Your task to perform on an android device: Search for "alienware area 51" on newegg, select the first entry, add it to the cart, then select checkout. Image 0: 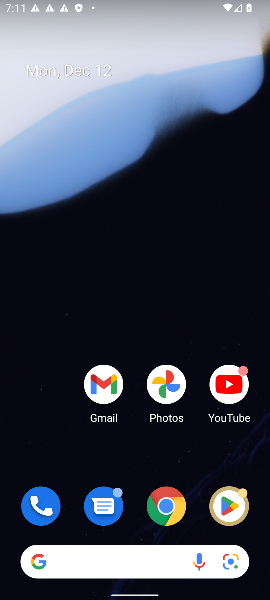
Step 0: click (90, 566)
Your task to perform on an android device: Search for "alienware area 51" on newegg, select the first entry, add it to the cart, then select checkout. Image 1: 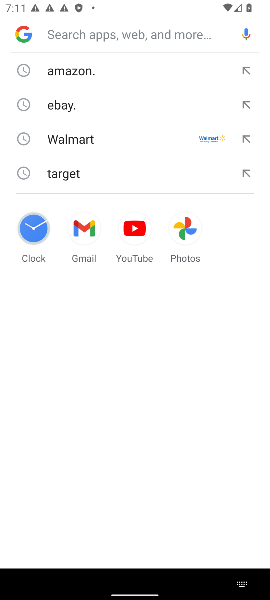
Step 1: type "newegg"
Your task to perform on an android device: Search for "alienware area 51" on newegg, select the first entry, add it to the cart, then select checkout. Image 2: 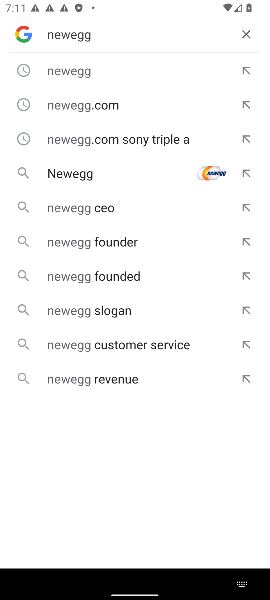
Step 2: click (101, 170)
Your task to perform on an android device: Search for "alienware area 51" on newegg, select the first entry, add it to the cart, then select checkout. Image 3: 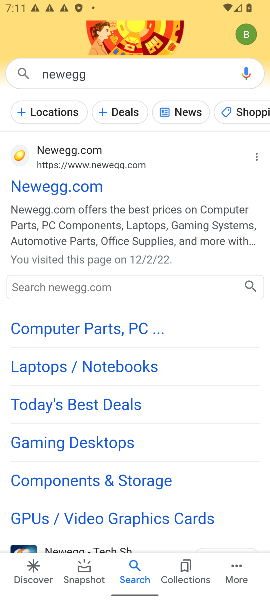
Step 3: click (95, 179)
Your task to perform on an android device: Search for "alienware area 51" on newegg, select the first entry, add it to the cart, then select checkout. Image 4: 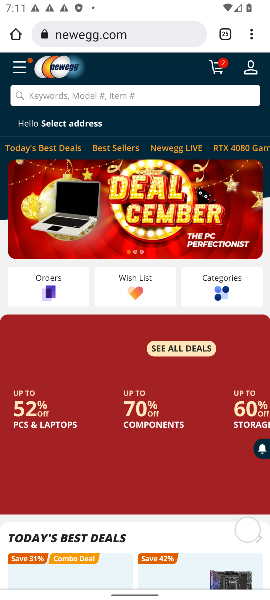
Step 4: click (90, 91)
Your task to perform on an android device: Search for "alienware area 51" on newegg, select the first entry, add it to the cart, then select checkout. Image 5: 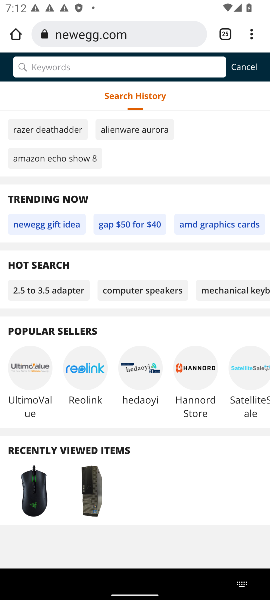
Step 5: type "alienware area 51"
Your task to perform on an android device: Search for "alienware area 51" on newegg, select the first entry, add it to the cart, then select checkout. Image 6: 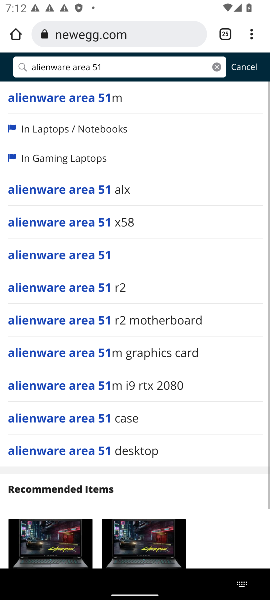
Step 6: click (162, 94)
Your task to perform on an android device: Search for "alienware area 51" on newegg, select the first entry, add it to the cart, then select checkout. Image 7: 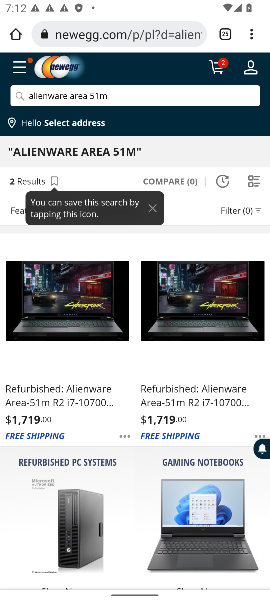
Step 7: click (55, 358)
Your task to perform on an android device: Search for "alienware area 51" on newegg, select the first entry, add it to the cart, then select checkout. Image 8: 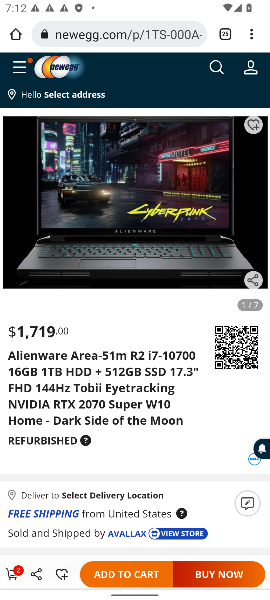
Step 8: click (116, 568)
Your task to perform on an android device: Search for "alienware area 51" on newegg, select the first entry, add it to the cart, then select checkout. Image 9: 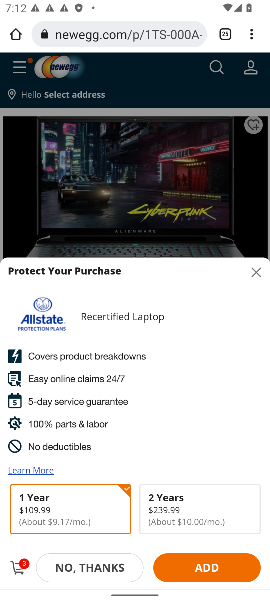
Step 9: task complete